Your task to perform on an android device: Clear the cart on newegg.com. Add "logitech g pro" to the cart on newegg.com Image 0: 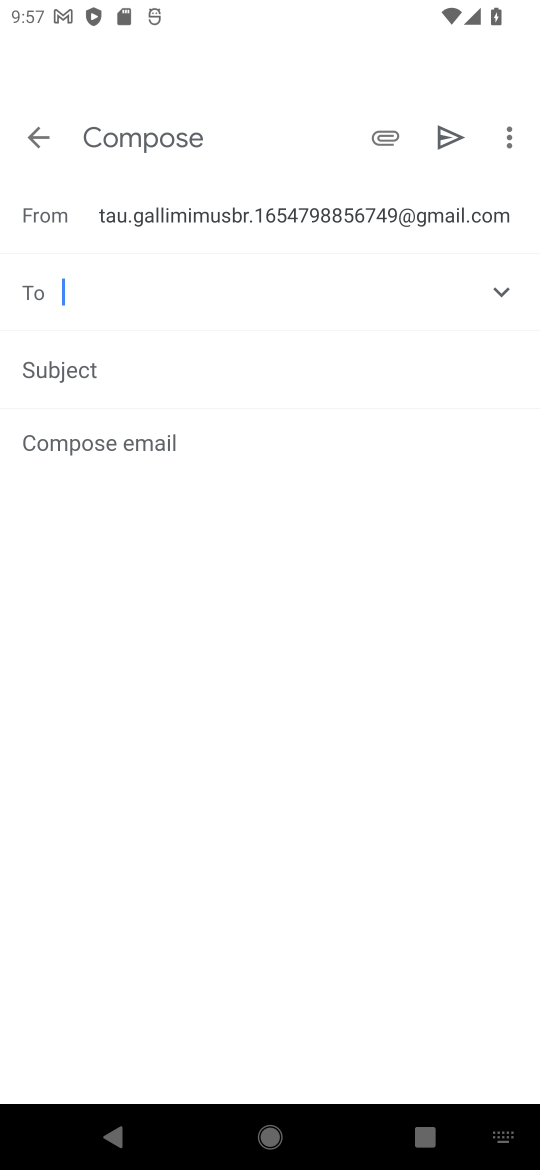
Step 0: press home button
Your task to perform on an android device: Clear the cart on newegg.com. Add "logitech g pro" to the cart on newegg.com Image 1: 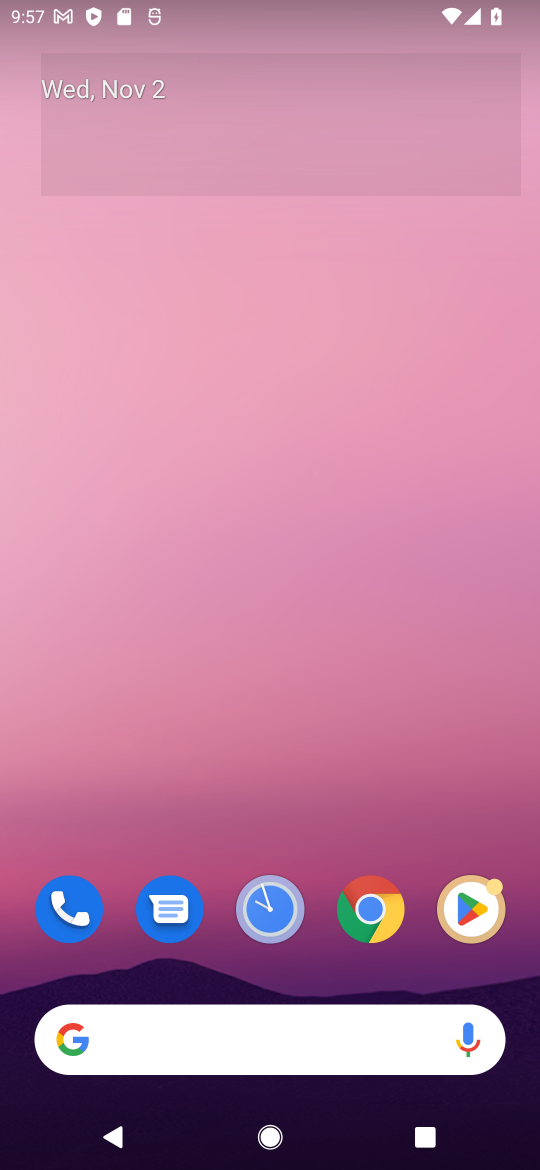
Step 1: click (367, 914)
Your task to perform on an android device: Clear the cart on newegg.com. Add "logitech g pro" to the cart on newegg.com Image 2: 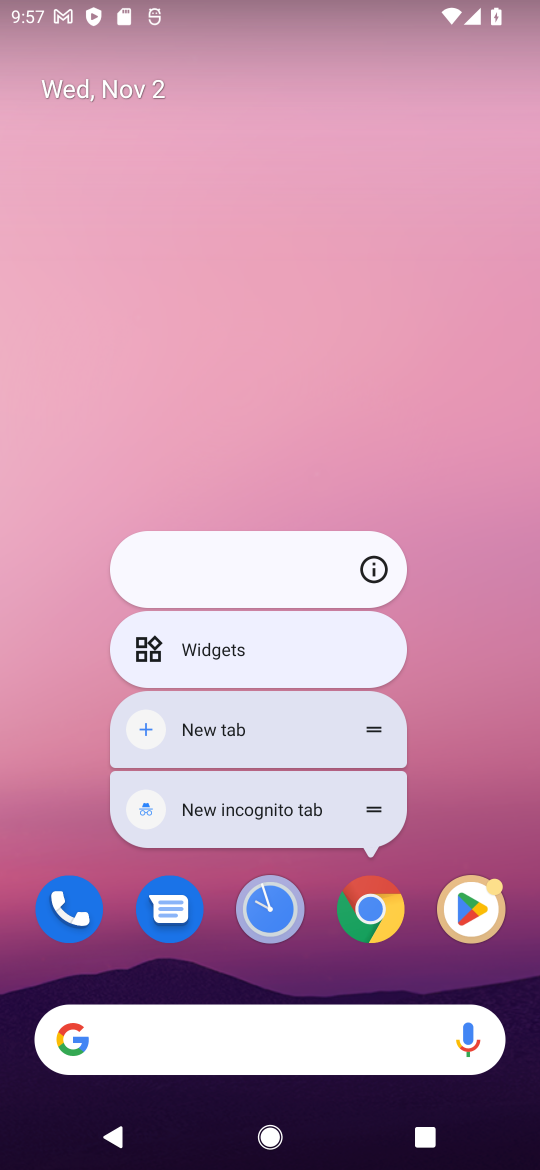
Step 2: click (386, 921)
Your task to perform on an android device: Clear the cart on newegg.com. Add "logitech g pro" to the cart on newegg.com Image 3: 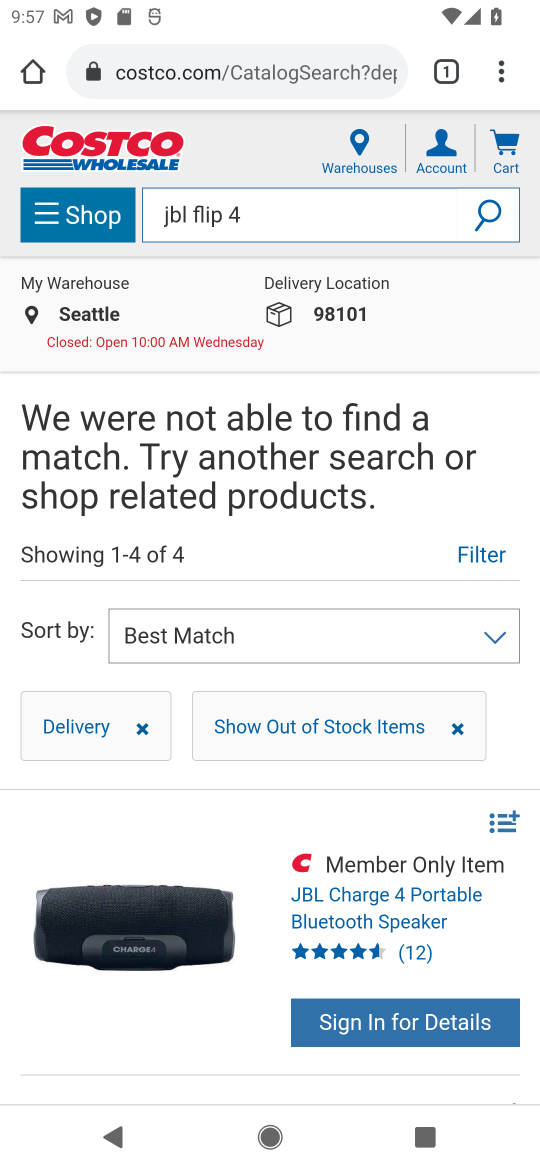
Step 3: click (227, 77)
Your task to perform on an android device: Clear the cart on newegg.com. Add "logitech g pro" to the cart on newegg.com Image 4: 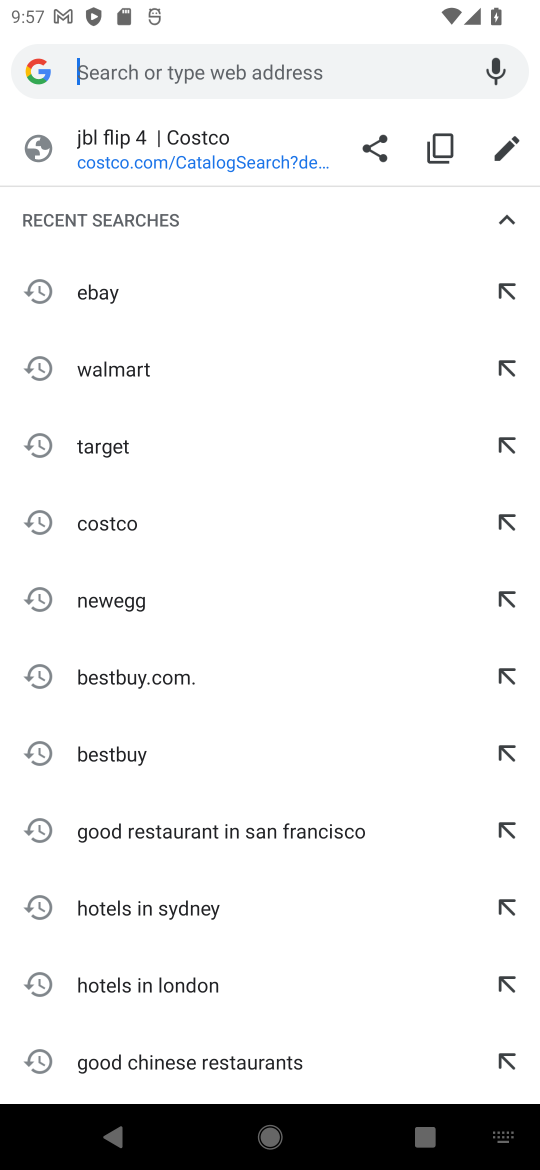
Step 4: type "newegg.com"
Your task to perform on an android device: Clear the cart on newegg.com. Add "logitech g pro" to the cart on newegg.com Image 5: 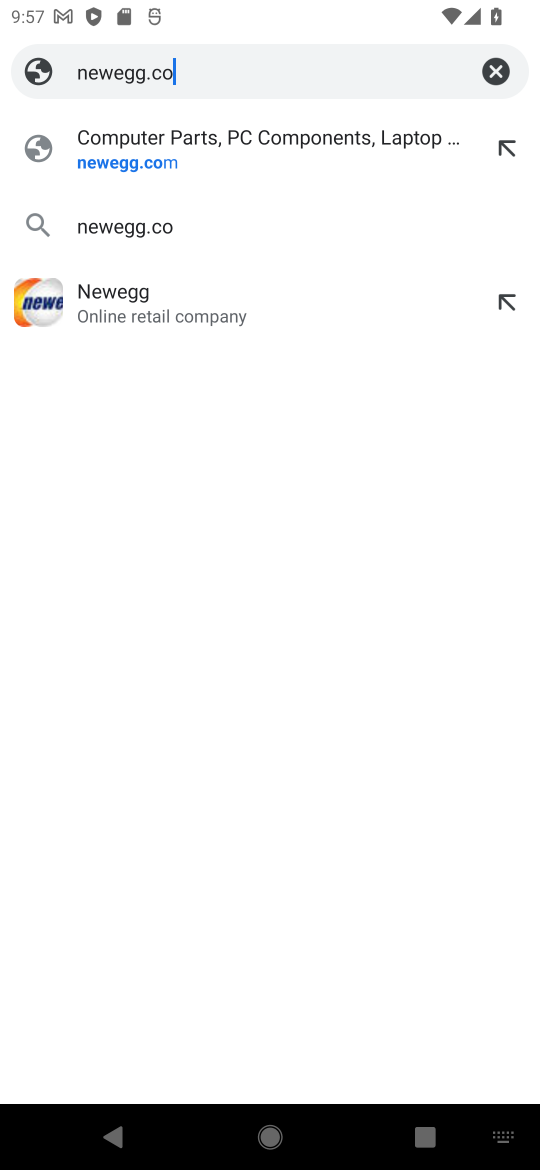
Step 5: type ""
Your task to perform on an android device: Clear the cart on newegg.com. Add "logitech g pro" to the cart on newegg.com Image 6: 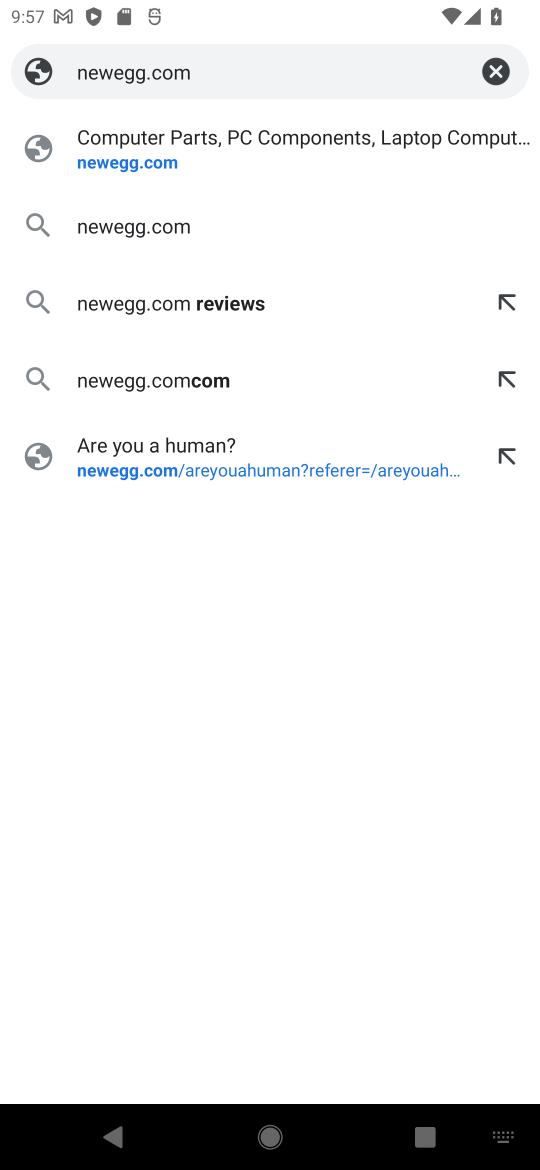
Step 6: press enter
Your task to perform on an android device: Clear the cart on newegg.com. Add "logitech g pro" to the cart on newegg.com Image 7: 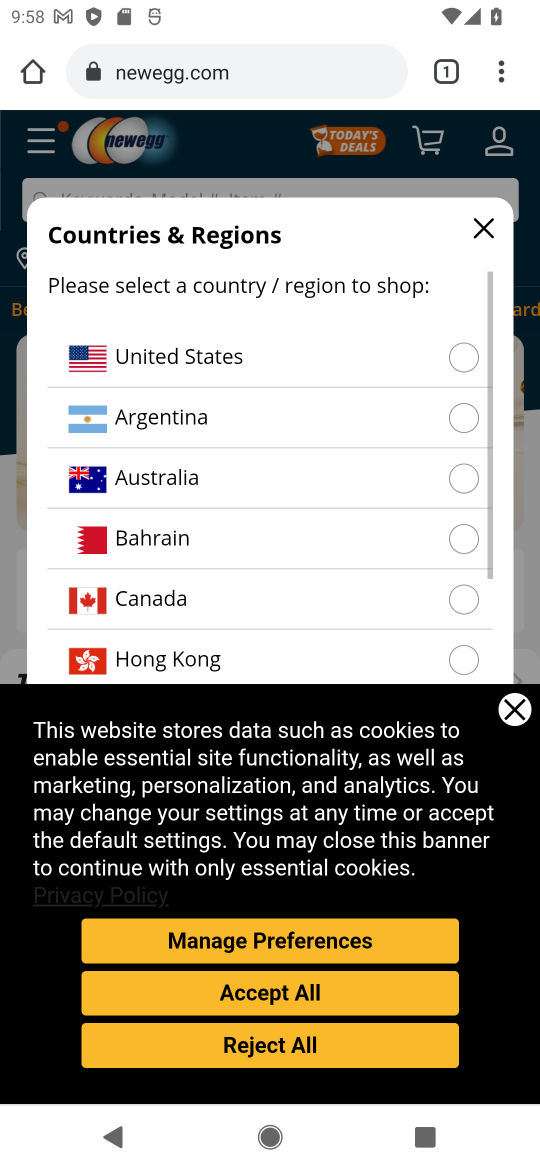
Step 7: click (281, 187)
Your task to perform on an android device: Clear the cart on newegg.com. Add "logitech g pro" to the cart on newegg.com Image 8: 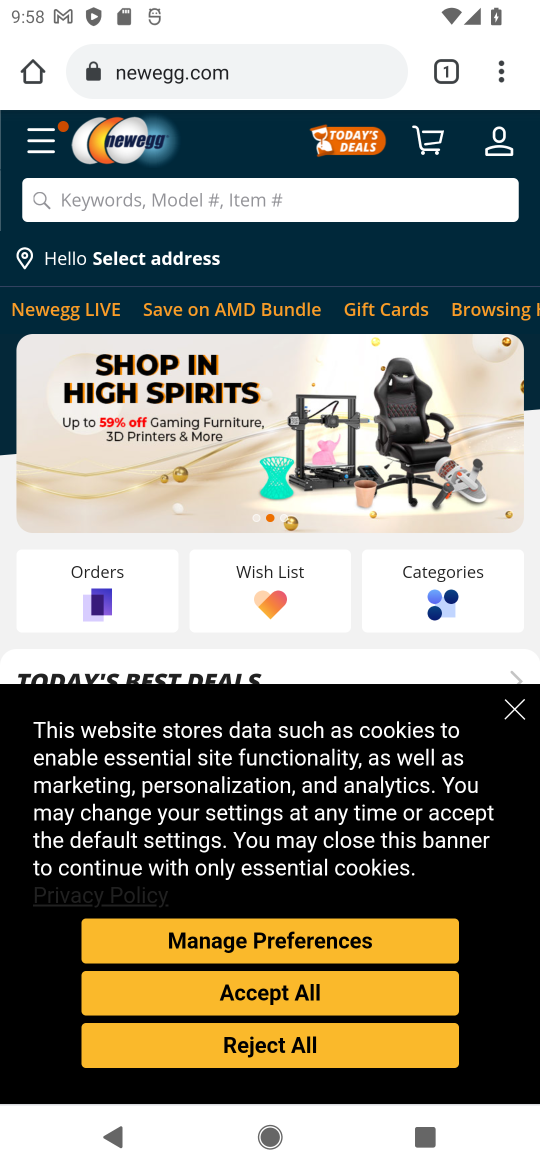
Step 8: click (458, 363)
Your task to perform on an android device: Clear the cart on newegg.com. Add "logitech g pro" to the cart on newegg.com Image 9: 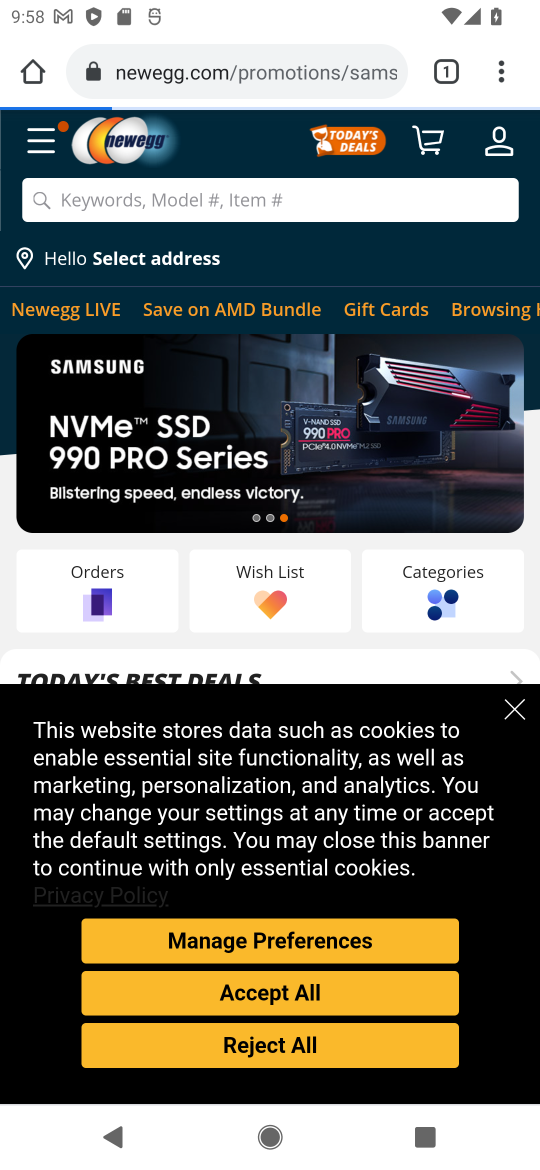
Step 9: click (323, 996)
Your task to perform on an android device: Clear the cart on newegg.com. Add "logitech g pro" to the cart on newegg.com Image 10: 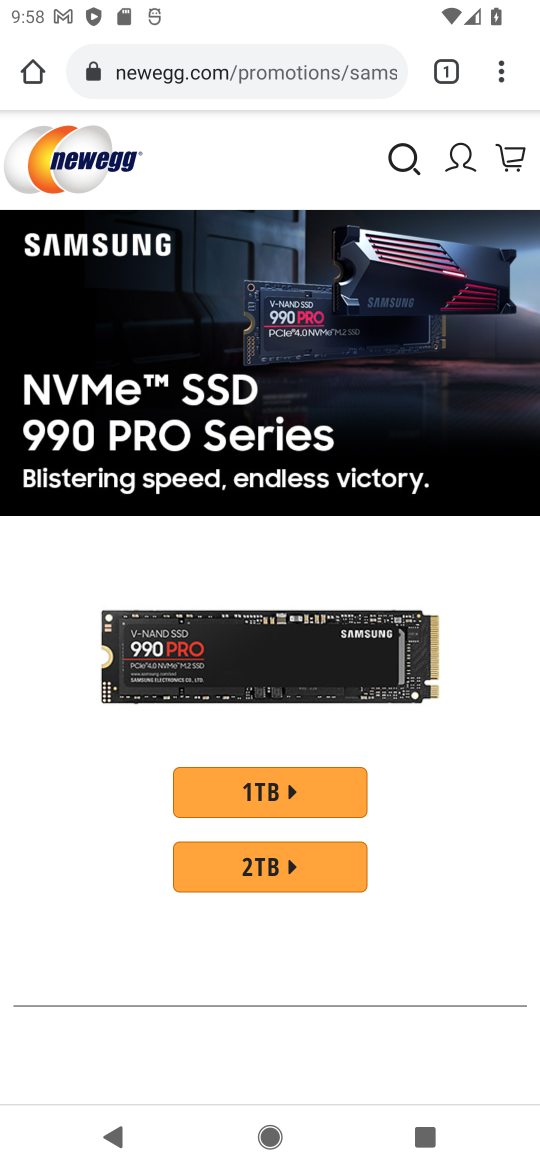
Step 10: click (407, 163)
Your task to perform on an android device: Clear the cart on newegg.com. Add "logitech g pro" to the cart on newegg.com Image 11: 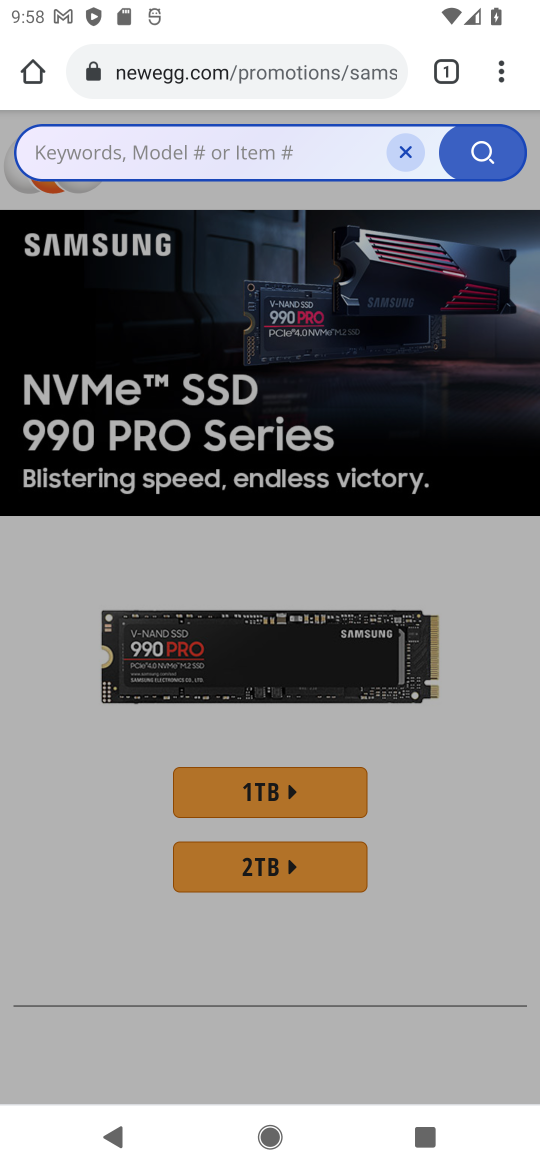
Step 11: type "logitech g pro"
Your task to perform on an android device: Clear the cart on newegg.com. Add "logitech g pro" to the cart on newegg.com Image 12: 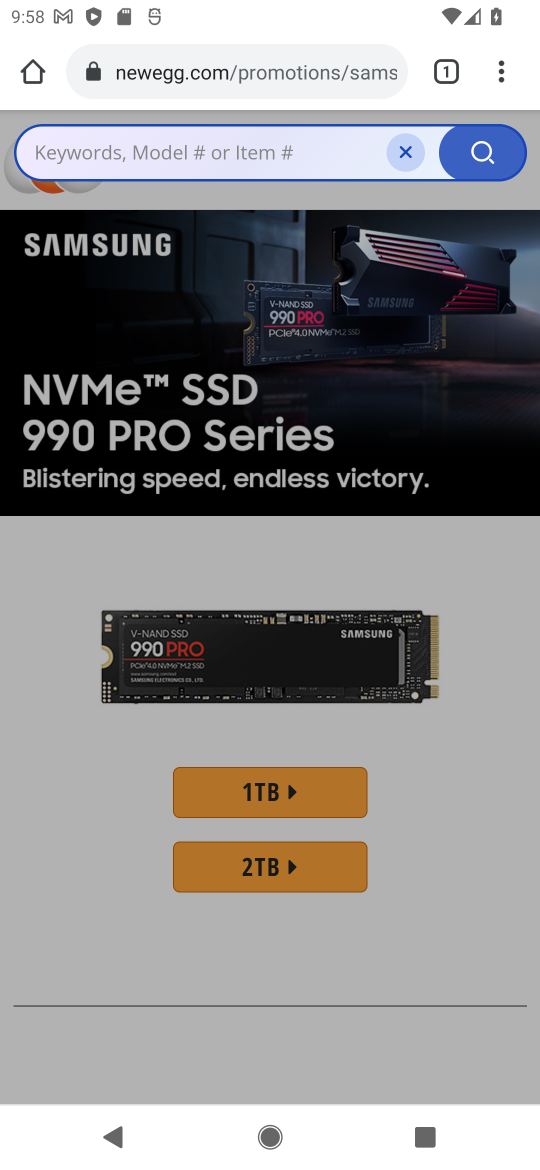
Step 12: type ""
Your task to perform on an android device: Clear the cart on newegg.com. Add "logitech g pro" to the cart on newegg.com Image 13: 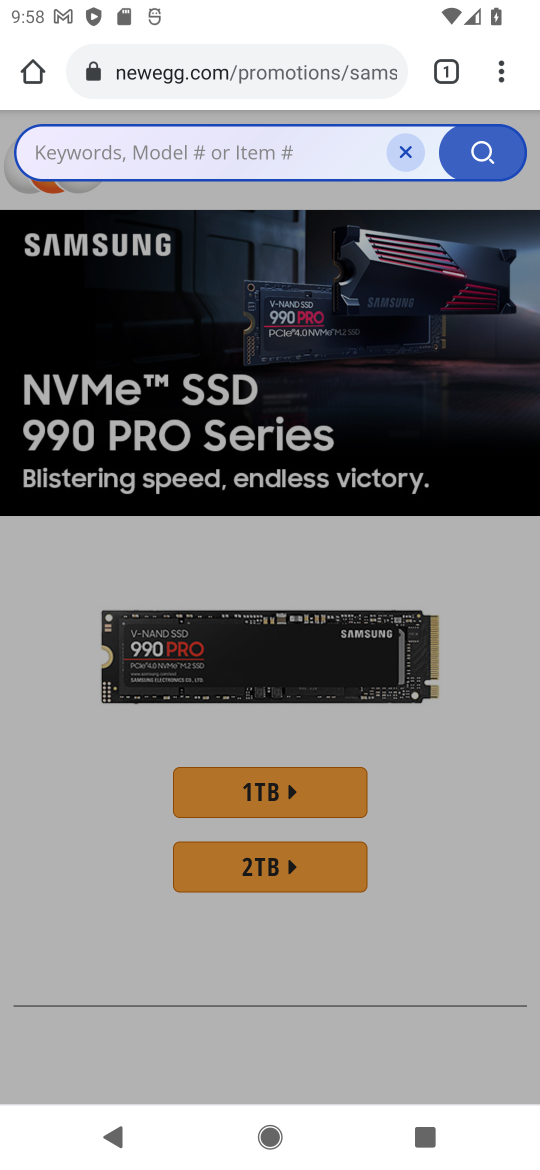
Step 13: click (189, 156)
Your task to perform on an android device: Clear the cart on newegg.com. Add "logitech g pro" to the cart on newegg.com Image 14: 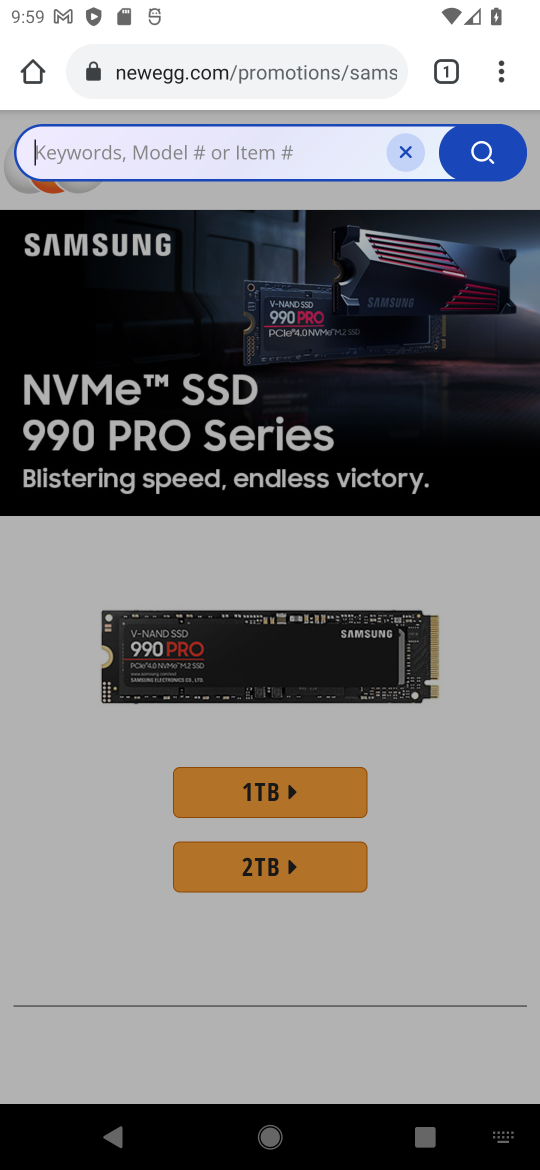
Step 14: type "logitech g pro"
Your task to perform on an android device: Clear the cart on newegg.com. Add "logitech g pro" to the cart on newegg.com Image 15: 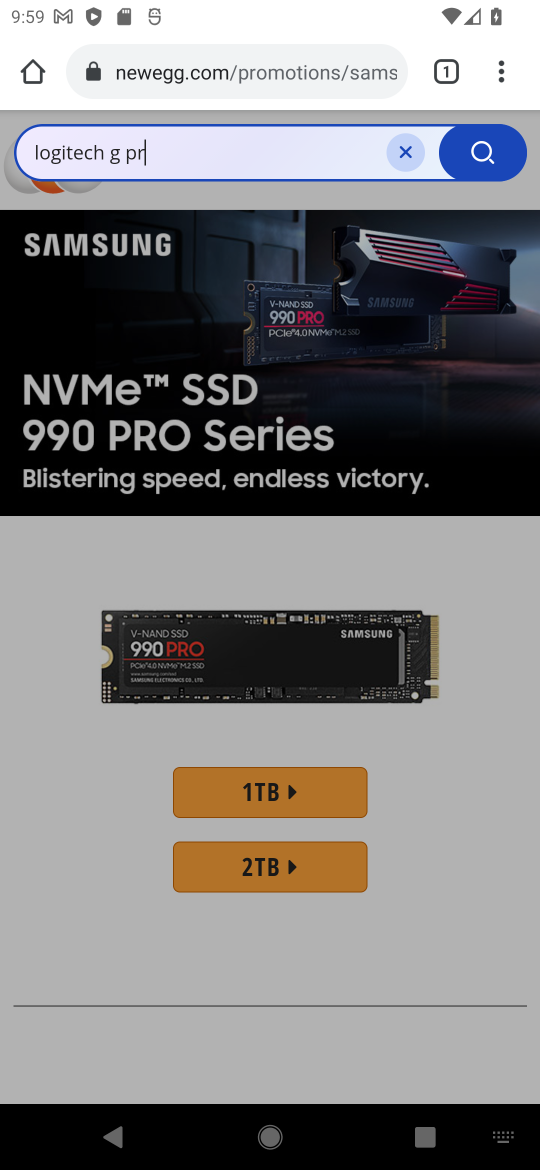
Step 15: type ""
Your task to perform on an android device: Clear the cart on newegg.com. Add "logitech g pro" to the cart on newegg.com Image 16: 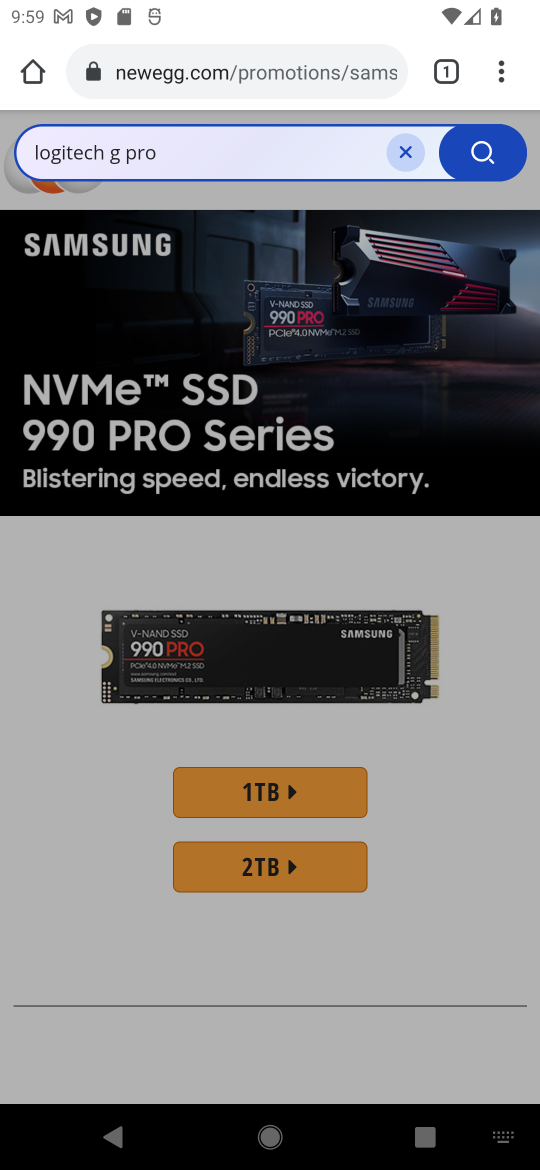
Step 16: press enter
Your task to perform on an android device: Clear the cart on newegg.com. Add "logitech g pro" to the cart on newegg.com Image 17: 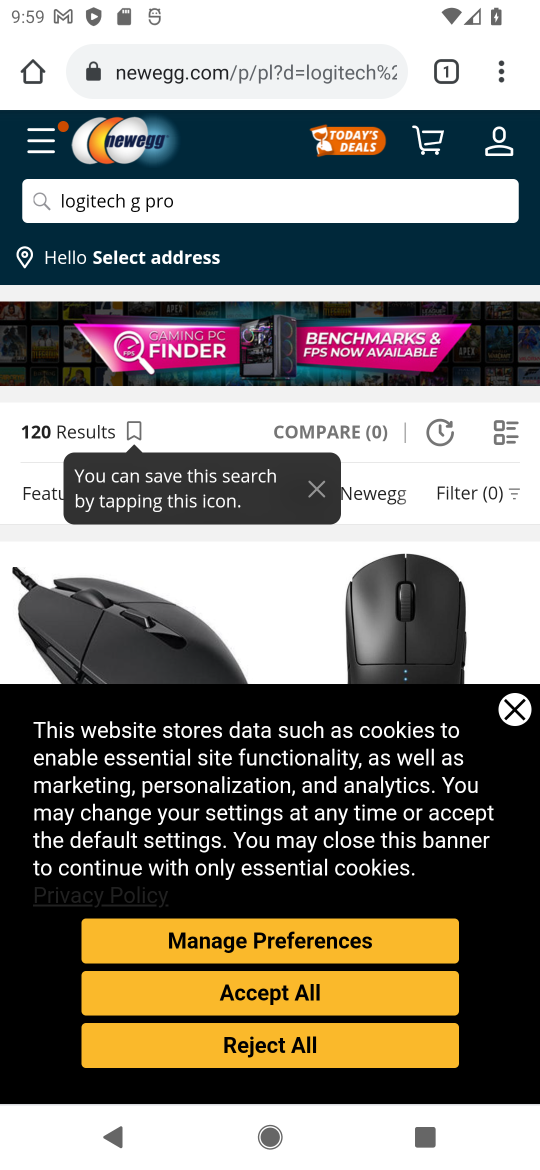
Step 17: click (440, 293)
Your task to perform on an android device: Clear the cart on newegg.com. Add "logitech g pro" to the cart on newegg.com Image 18: 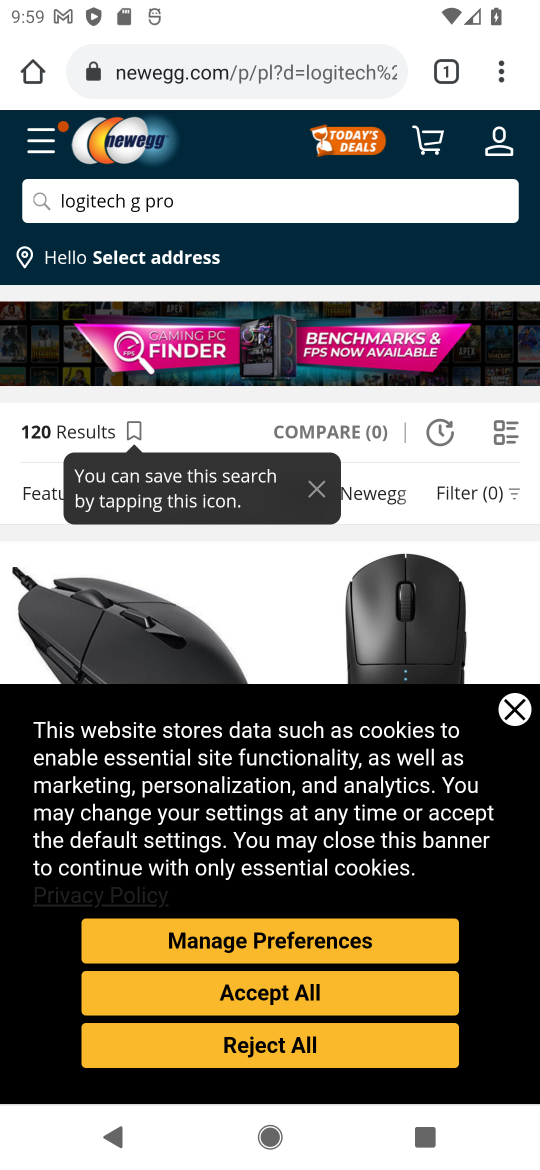
Step 18: click (304, 1005)
Your task to perform on an android device: Clear the cart on newegg.com. Add "logitech g pro" to the cart on newegg.com Image 19: 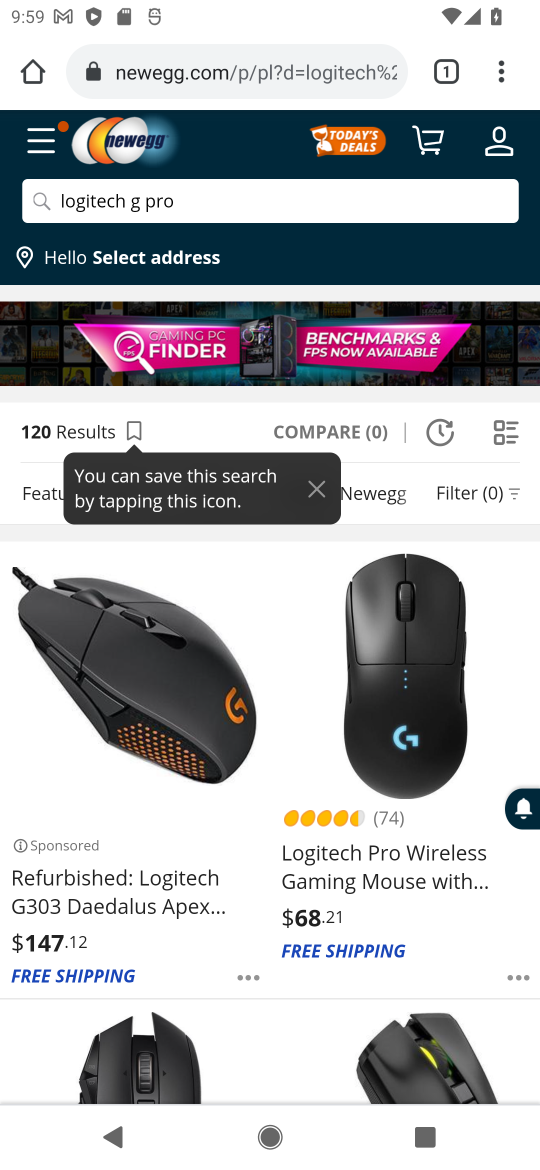
Step 19: click (154, 719)
Your task to perform on an android device: Clear the cart on newegg.com. Add "logitech g pro" to the cart on newegg.com Image 20: 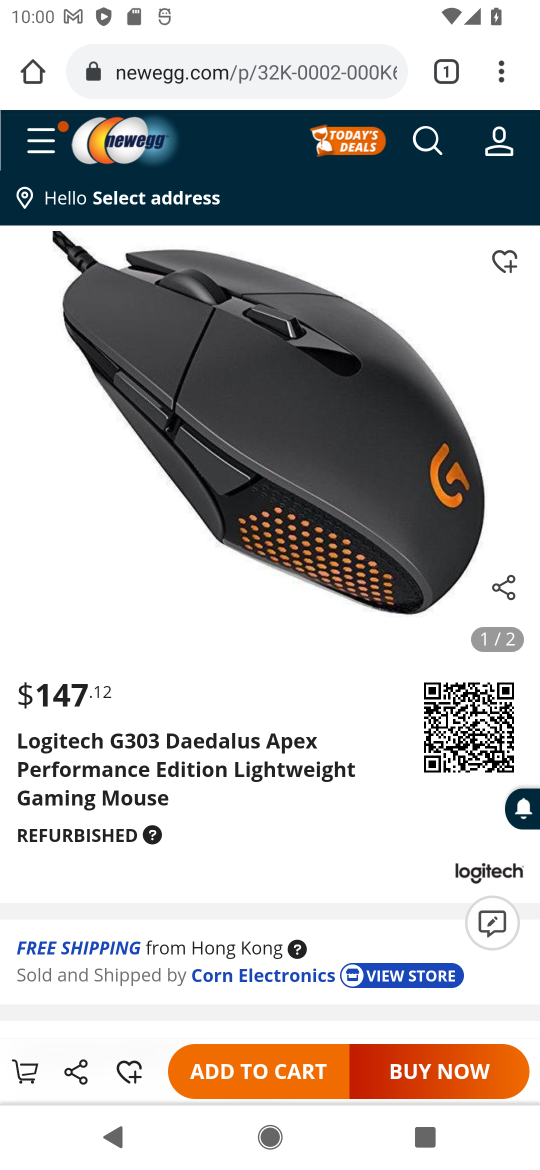
Step 20: task complete